Your task to perform on an android device: Open calendar and show me the second week of next month Image 0: 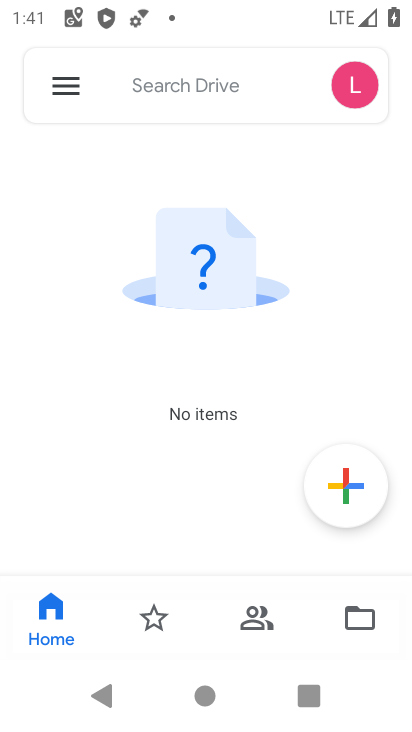
Step 0: press home button
Your task to perform on an android device: Open calendar and show me the second week of next month Image 1: 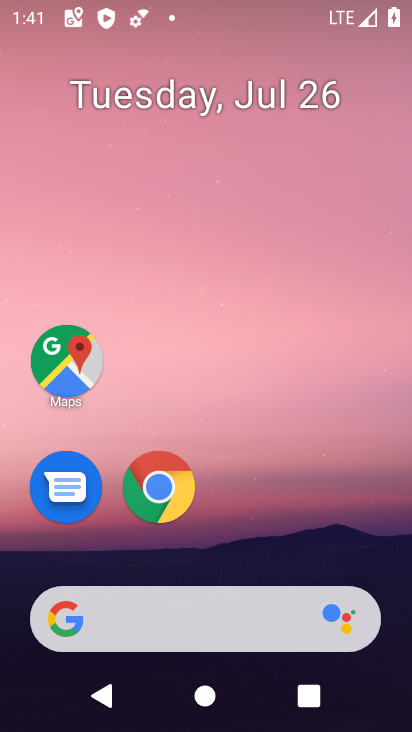
Step 1: drag from (254, 645) to (270, 142)
Your task to perform on an android device: Open calendar and show me the second week of next month Image 2: 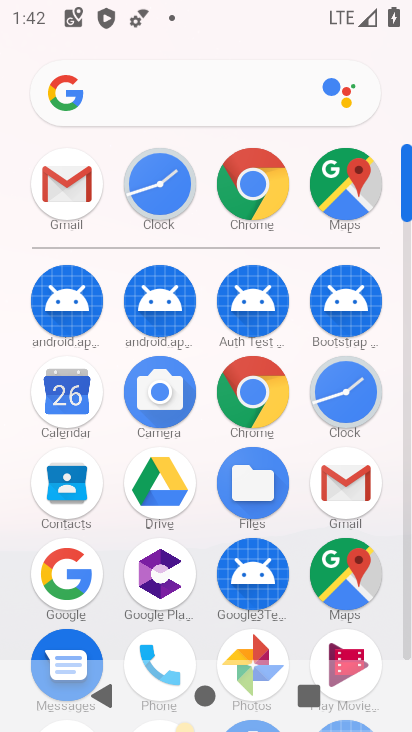
Step 2: click (70, 396)
Your task to perform on an android device: Open calendar and show me the second week of next month Image 3: 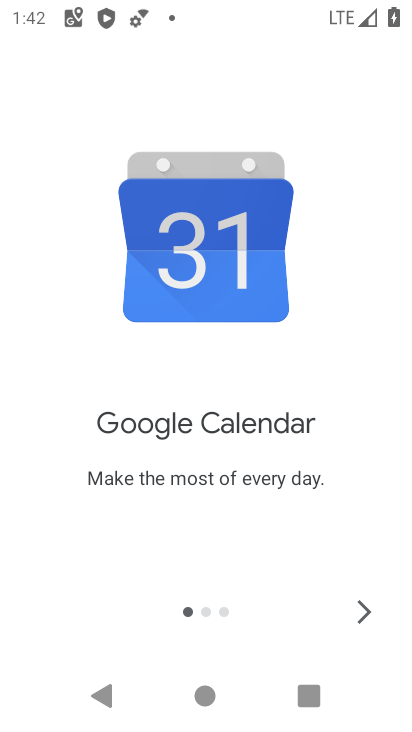
Step 3: click (363, 612)
Your task to perform on an android device: Open calendar and show me the second week of next month Image 4: 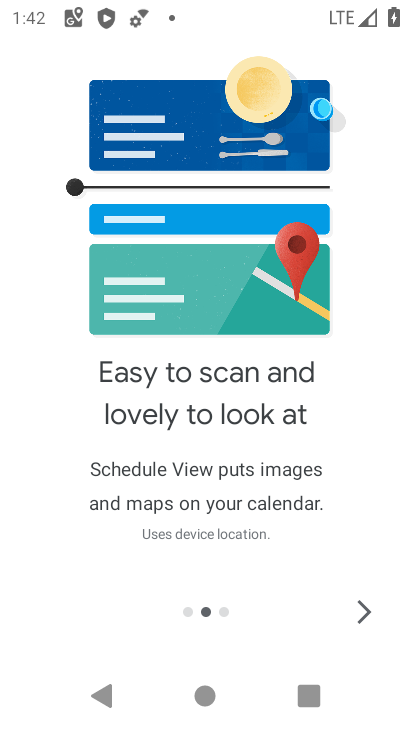
Step 4: click (363, 609)
Your task to perform on an android device: Open calendar and show me the second week of next month Image 5: 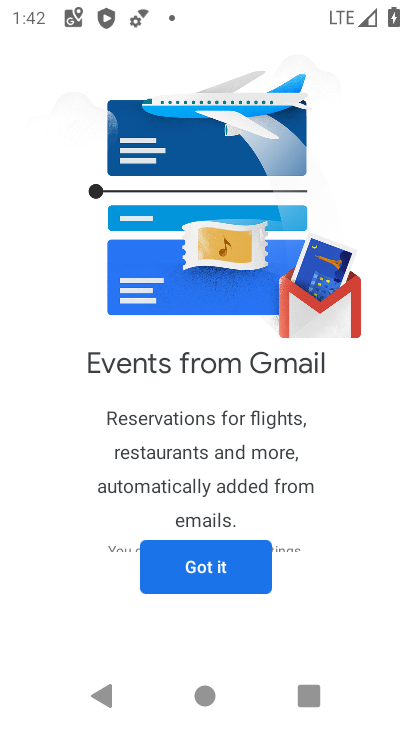
Step 5: click (233, 577)
Your task to perform on an android device: Open calendar and show me the second week of next month Image 6: 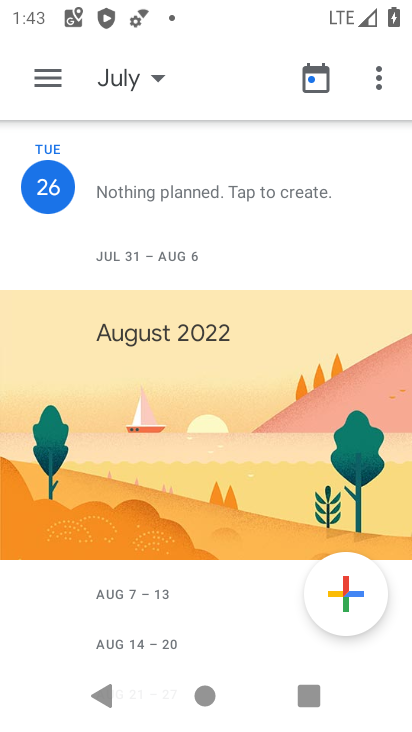
Step 6: click (128, 80)
Your task to perform on an android device: Open calendar and show me the second week of next month Image 7: 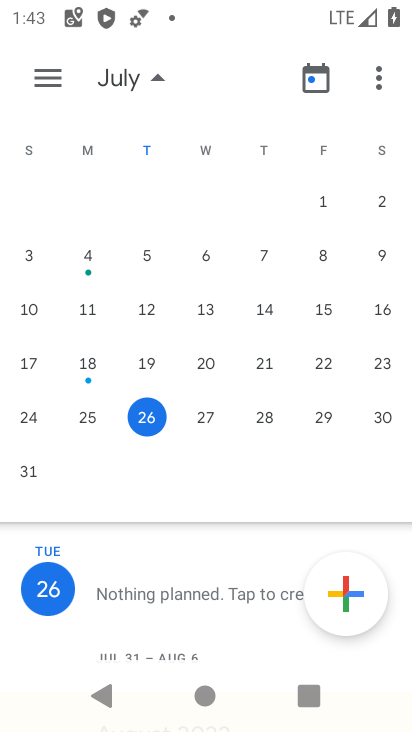
Step 7: drag from (296, 295) to (11, 364)
Your task to perform on an android device: Open calendar and show me the second week of next month Image 8: 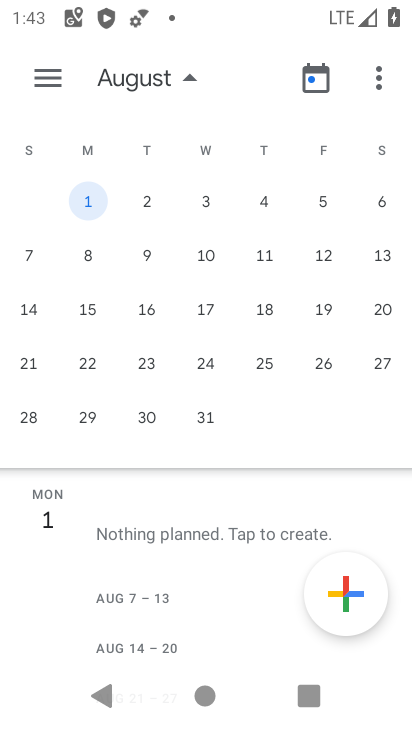
Step 8: click (87, 269)
Your task to perform on an android device: Open calendar and show me the second week of next month Image 9: 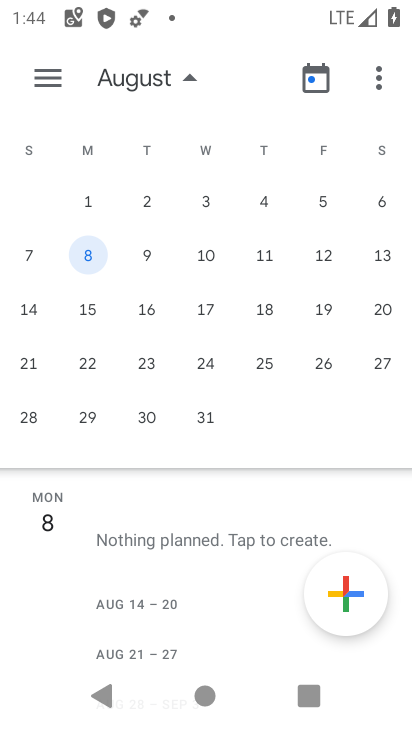
Step 9: task complete